Your task to perform on an android device: Search for Mexican restaurants on Maps Image 0: 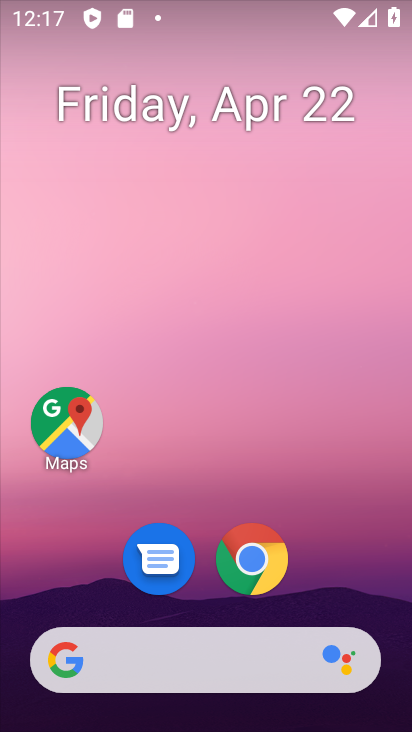
Step 0: drag from (364, 579) to (377, 155)
Your task to perform on an android device: Search for Mexican restaurants on Maps Image 1: 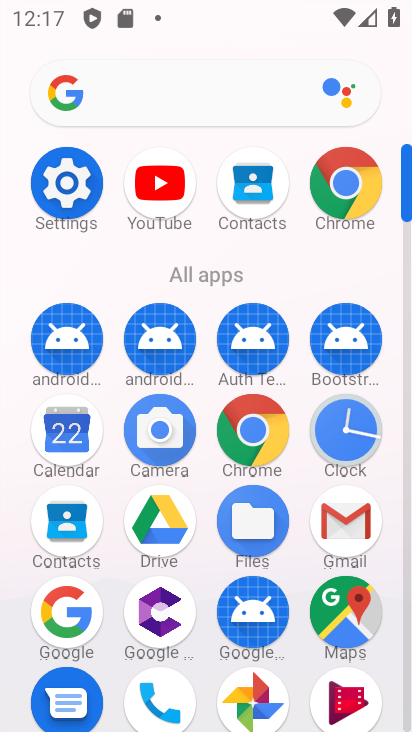
Step 1: click (351, 627)
Your task to perform on an android device: Search for Mexican restaurants on Maps Image 2: 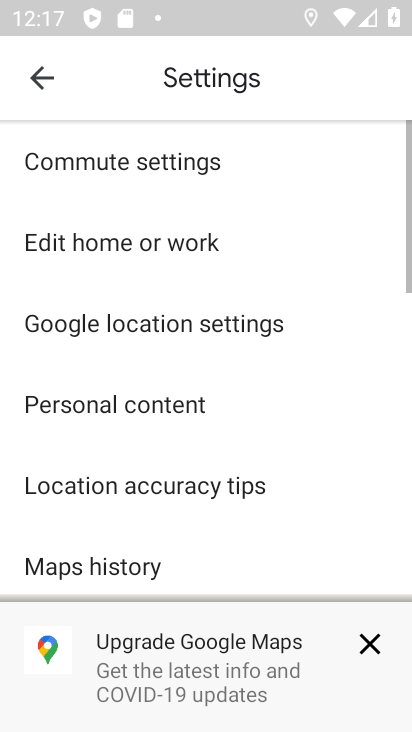
Step 2: click (42, 77)
Your task to perform on an android device: Search for Mexican restaurants on Maps Image 3: 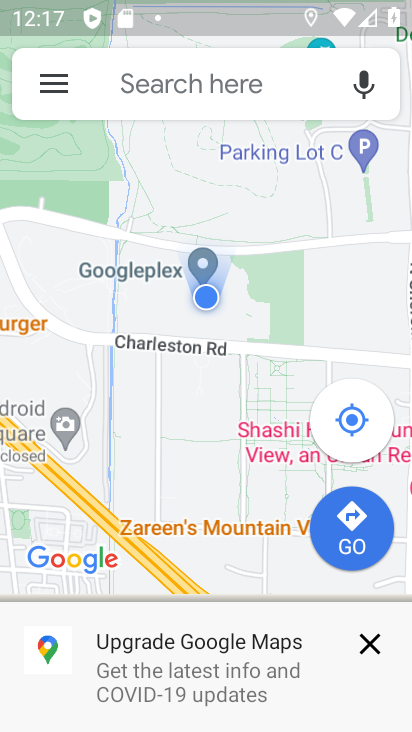
Step 3: click (241, 83)
Your task to perform on an android device: Search for Mexican restaurants on Maps Image 4: 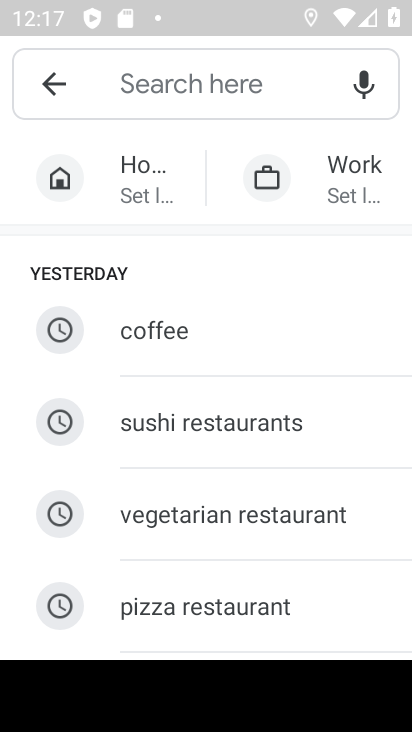
Step 4: type "mexican restaurants"
Your task to perform on an android device: Search for Mexican restaurants on Maps Image 5: 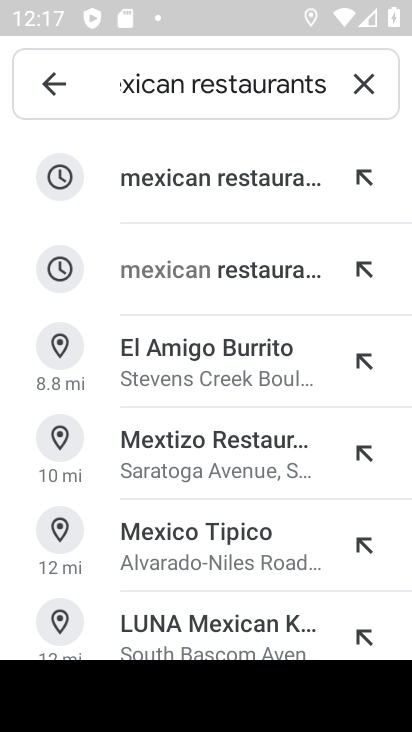
Step 5: click (255, 181)
Your task to perform on an android device: Search for Mexican restaurants on Maps Image 6: 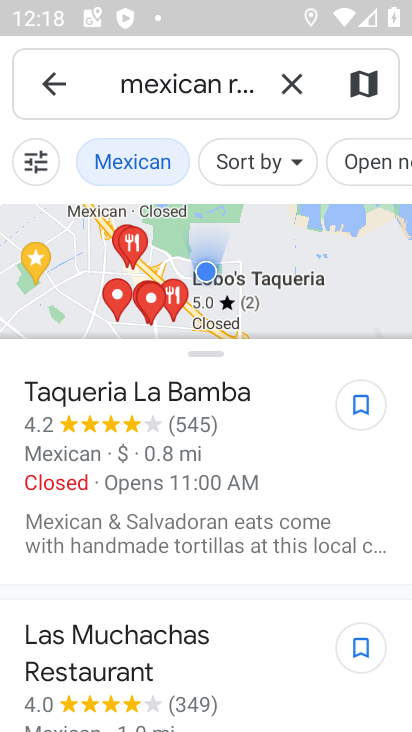
Step 6: task complete